Your task to perform on an android device: Search for Mexican restaurants on Maps Image 0: 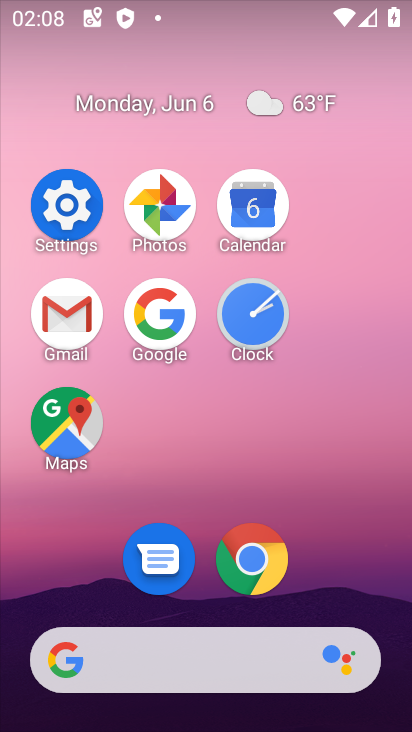
Step 0: click (72, 403)
Your task to perform on an android device: Search for Mexican restaurants on Maps Image 1: 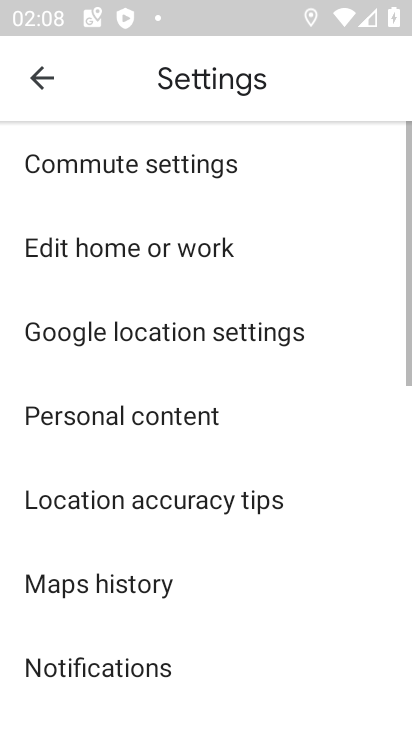
Step 1: click (49, 68)
Your task to perform on an android device: Search for Mexican restaurants on Maps Image 2: 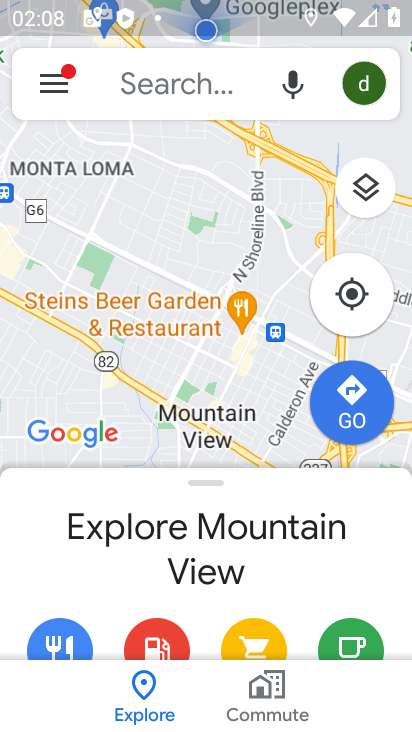
Step 2: click (234, 70)
Your task to perform on an android device: Search for Mexican restaurants on Maps Image 3: 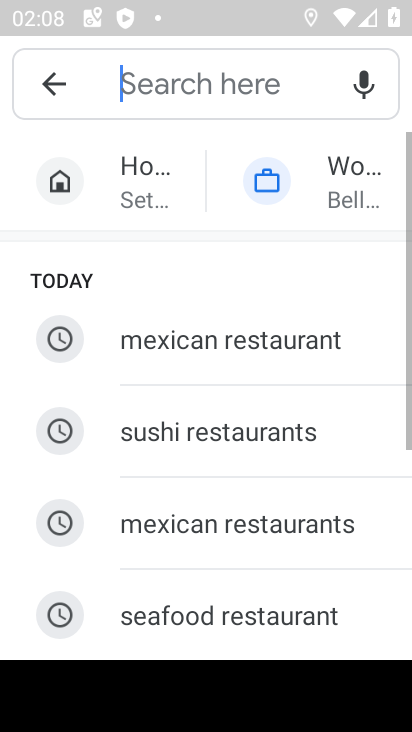
Step 3: click (237, 373)
Your task to perform on an android device: Search for Mexican restaurants on Maps Image 4: 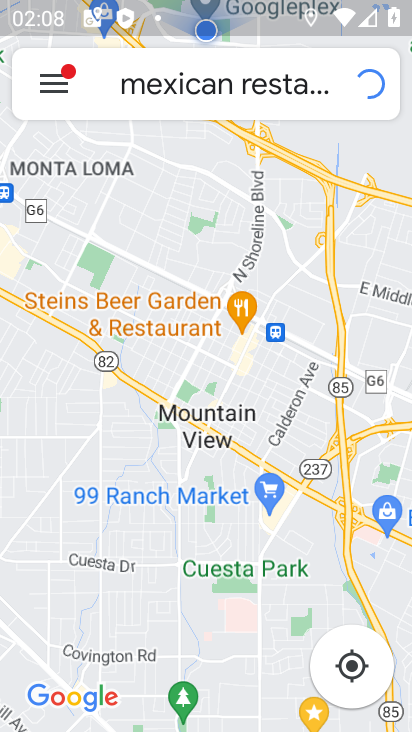
Step 4: task complete